Your task to perform on an android device: Go to Yahoo.com Image 0: 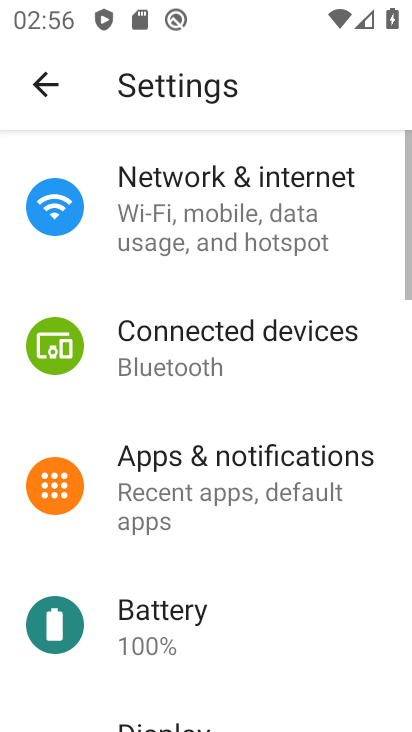
Step 0: press back button
Your task to perform on an android device: Go to Yahoo.com Image 1: 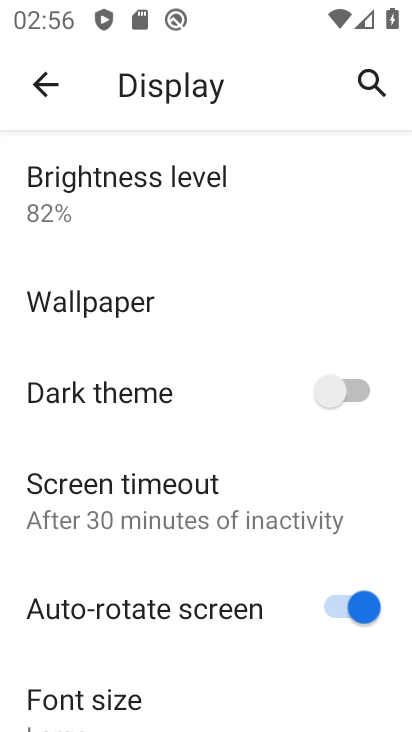
Step 1: press home button
Your task to perform on an android device: Go to Yahoo.com Image 2: 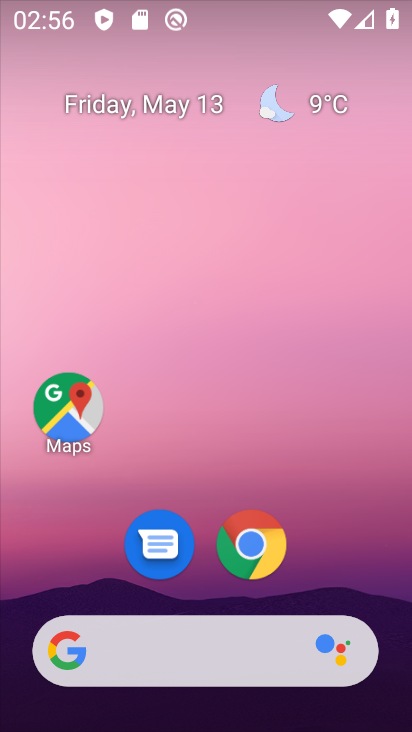
Step 2: click (222, 1)
Your task to perform on an android device: Go to Yahoo.com Image 3: 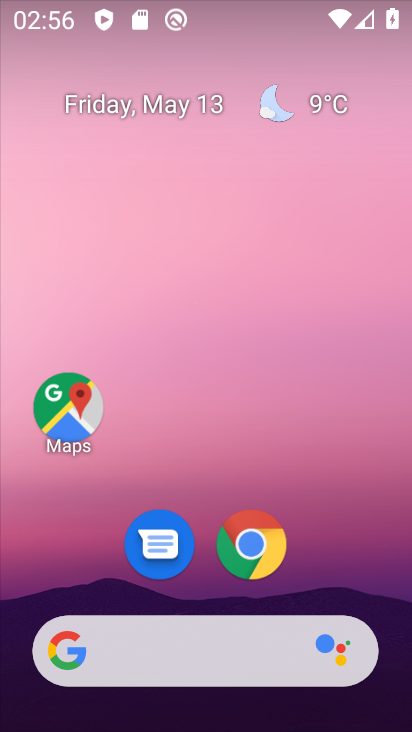
Step 3: drag from (326, 542) to (272, 59)
Your task to perform on an android device: Go to Yahoo.com Image 4: 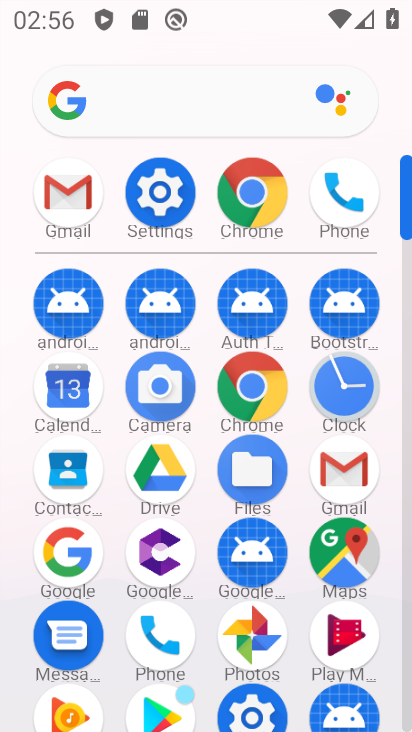
Step 4: click (244, 189)
Your task to perform on an android device: Go to Yahoo.com Image 5: 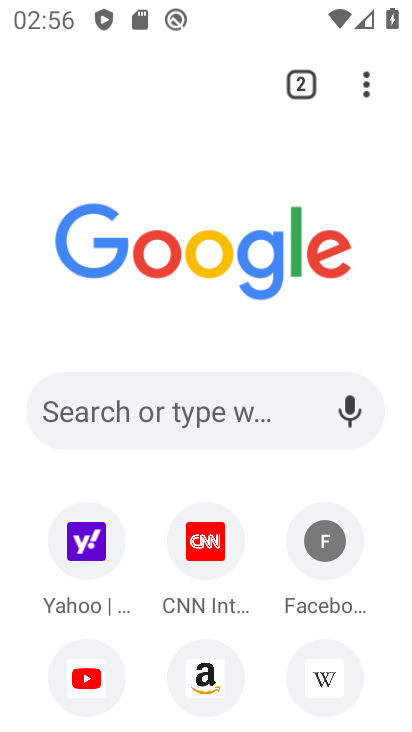
Step 5: click (261, 409)
Your task to perform on an android device: Go to Yahoo.com Image 6: 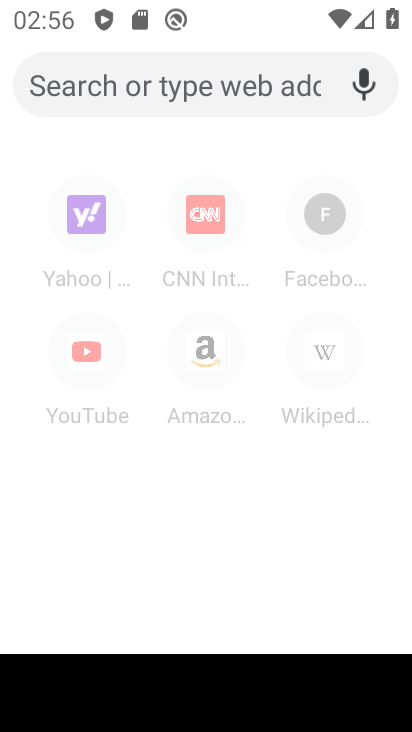
Step 6: type "Yahoo.com"
Your task to perform on an android device: Go to Yahoo.com Image 7: 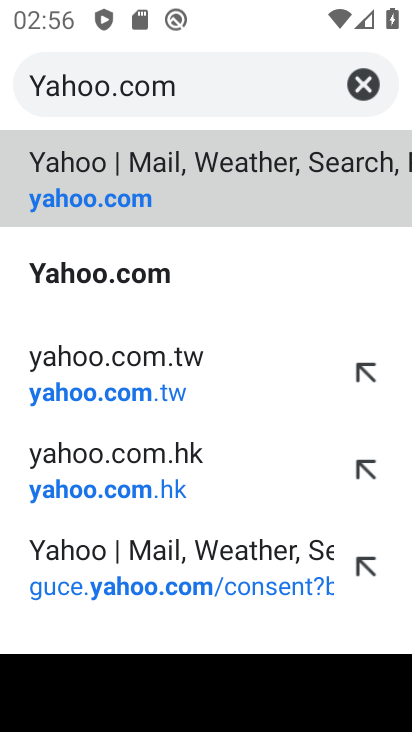
Step 7: click (198, 195)
Your task to perform on an android device: Go to Yahoo.com Image 8: 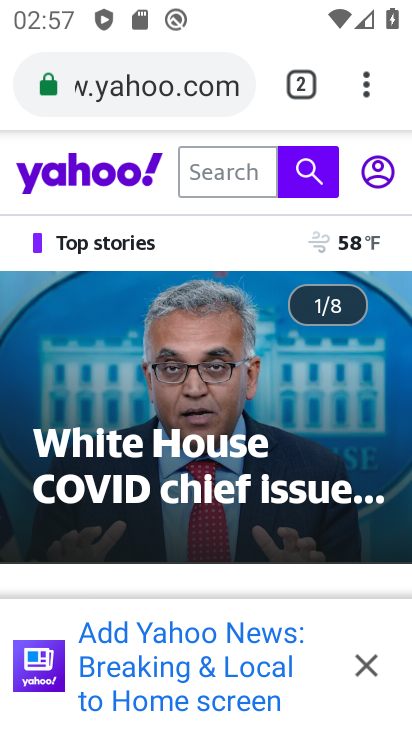
Step 8: task complete